Your task to perform on an android device: change your default location settings in chrome Image 0: 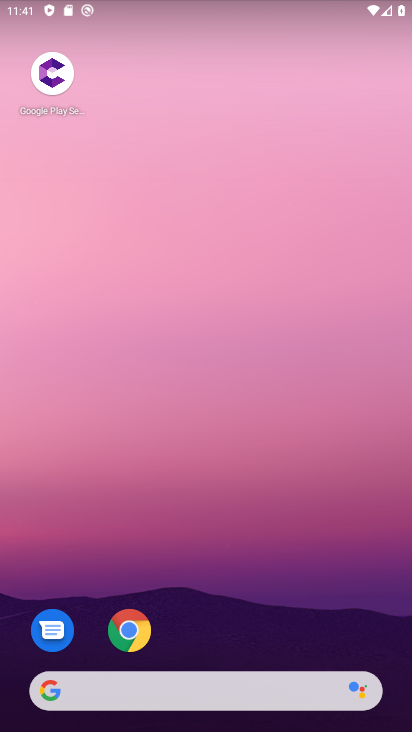
Step 0: click (132, 621)
Your task to perform on an android device: change your default location settings in chrome Image 1: 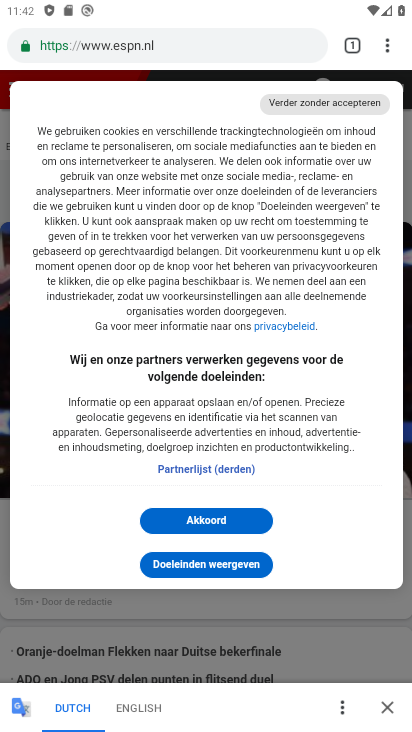
Step 1: click (387, 38)
Your task to perform on an android device: change your default location settings in chrome Image 2: 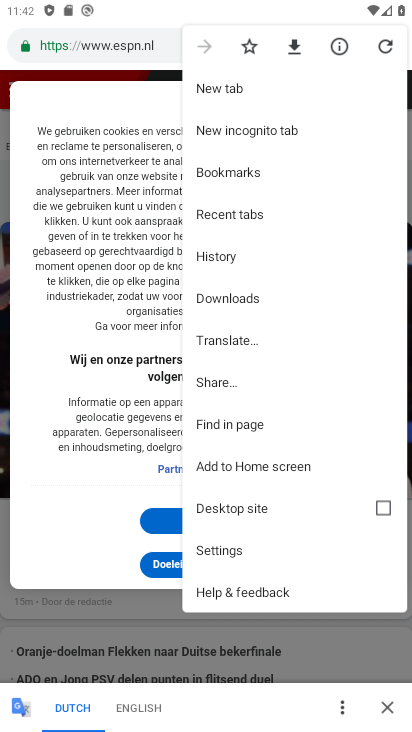
Step 2: drag from (386, 55) to (225, 552)
Your task to perform on an android device: change your default location settings in chrome Image 3: 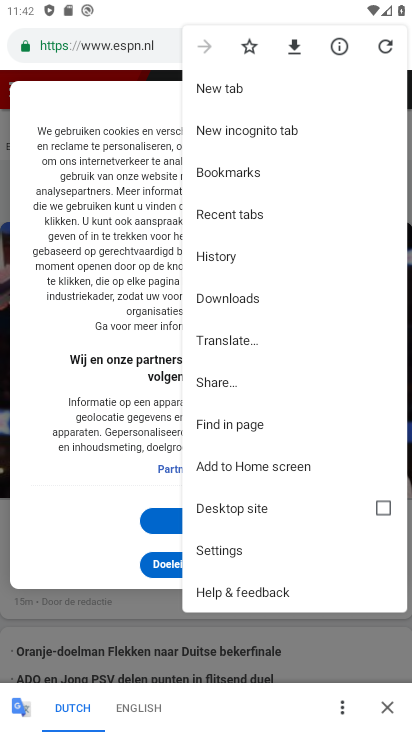
Step 3: click (213, 545)
Your task to perform on an android device: change your default location settings in chrome Image 4: 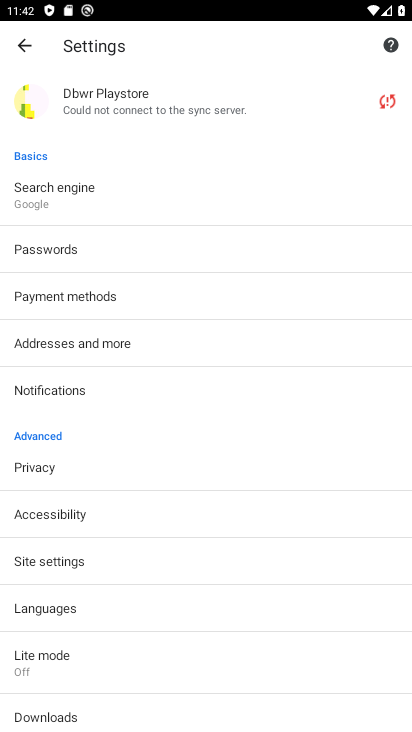
Step 4: click (87, 563)
Your task to perform on an android device: change your default location settings in chrome Image 5: 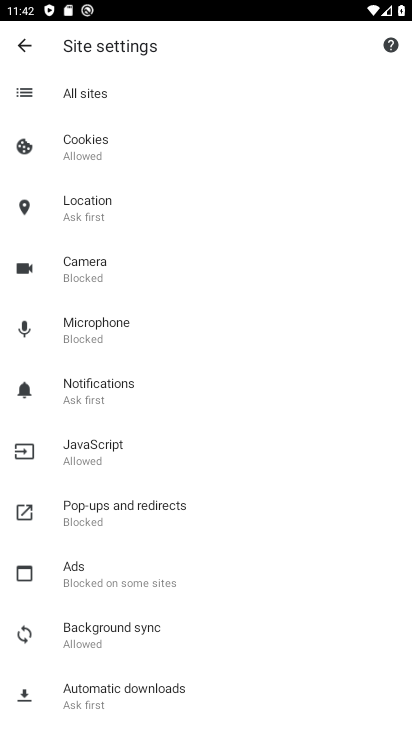
Step 5: click (86, 207)
Your task to perform on an android device: change your default location settings in chrome Image 6: 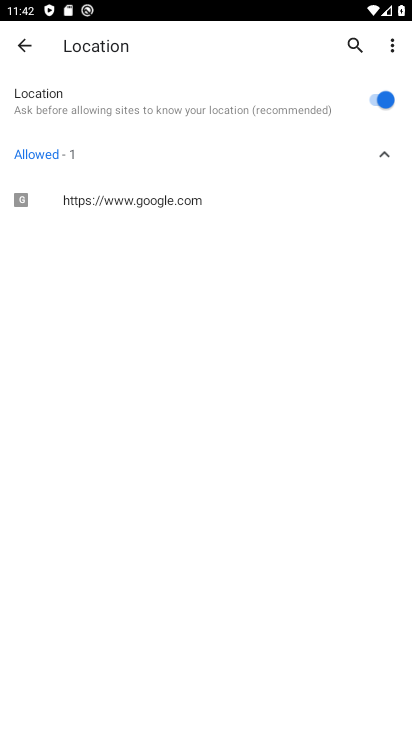
Step 6: click (384, 100)
Your task to perform on an android device: change your default location settings in chrome Image 7: 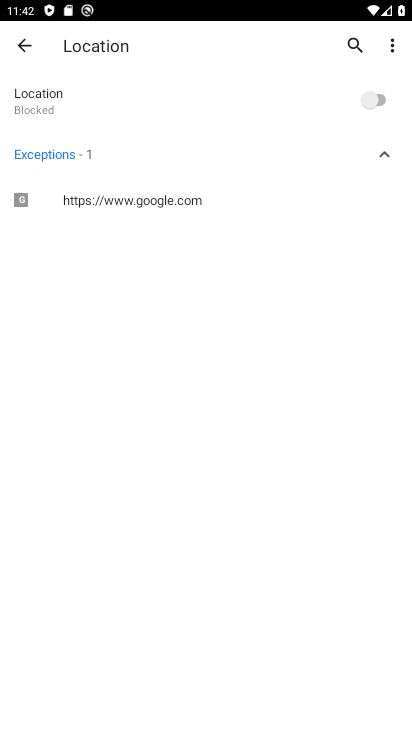
Step 7: task complete